Your task to perform on an android device: remove spam from my inbox in the gmail app Image 0: 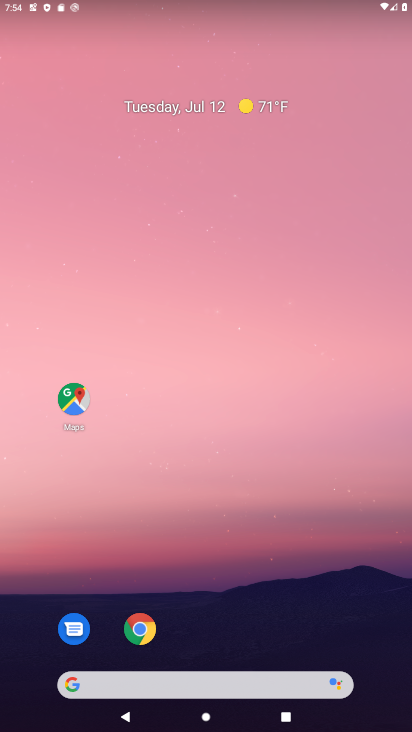
Step 0: drag from (374, 716) to (315, 178)
Your task to perform on an android device: remove spam from my inbox in the gmail app Image 1: 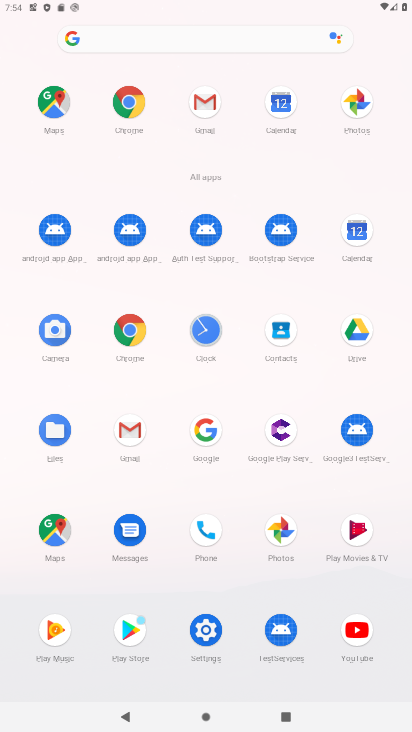
Step 1: click (205, 98)
Your task to perform on an android device: remove spam from my inbox in the gmail app Image 2: 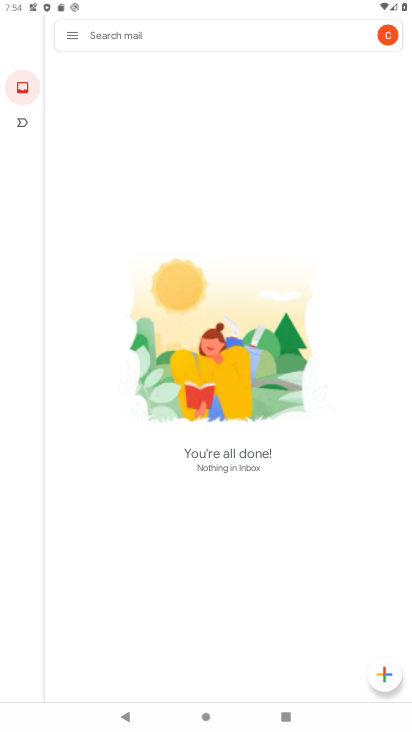
Step 2: click (70, 37)
Your task to perform on an android device: remove spam from my inbox in the gmail app Image 3: 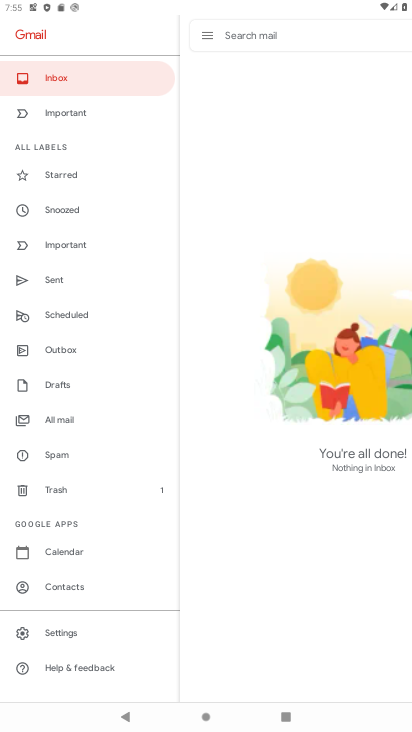
Step 3: click (50, 452)
Your task to perform on an android device: remove spam from my inbox in the gmail app Image 4: 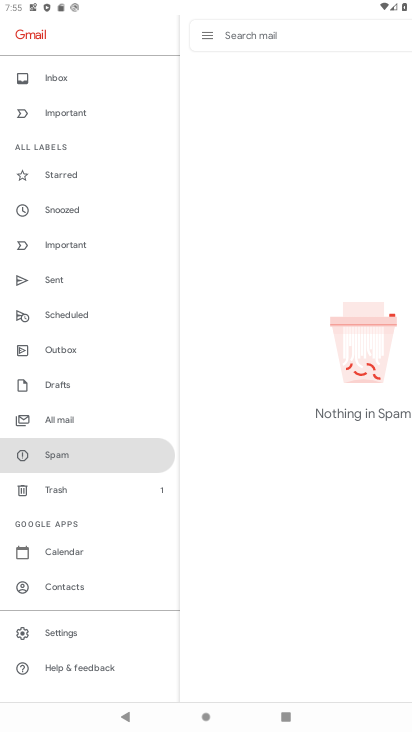
Step 4: task complete